Your task to perform on an android device: toggle notifications settings in the gmail app Image 0: 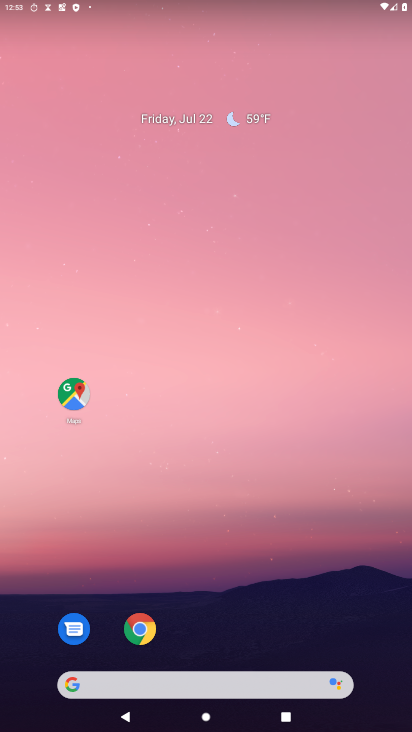
Step 0: drag from (281, 711) to (299, 18)
Your task to perform on an android device: toggle notifications settings in the gmail app Image 1: 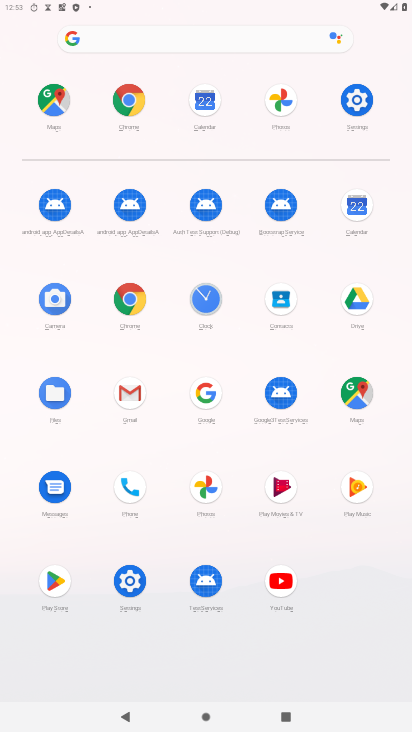
Step 1: click (136, 399)
Your task to perform on an android device: toggle notifications settings in the gmail app Image 2: 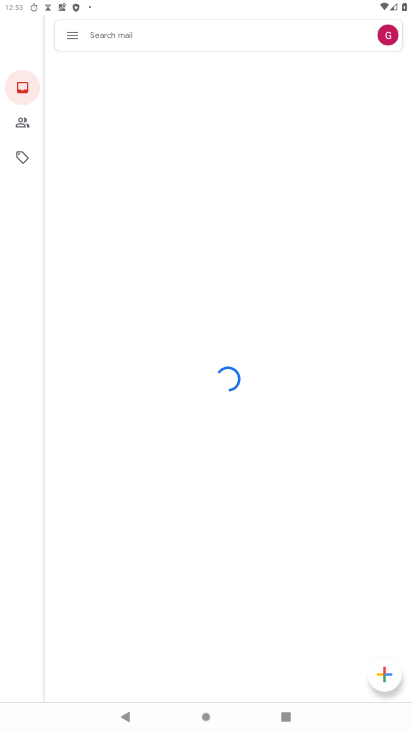
Step 2: click (72, 38)
Your task to perform on an android device: toggle notifications settings in the gmail app Image 3: 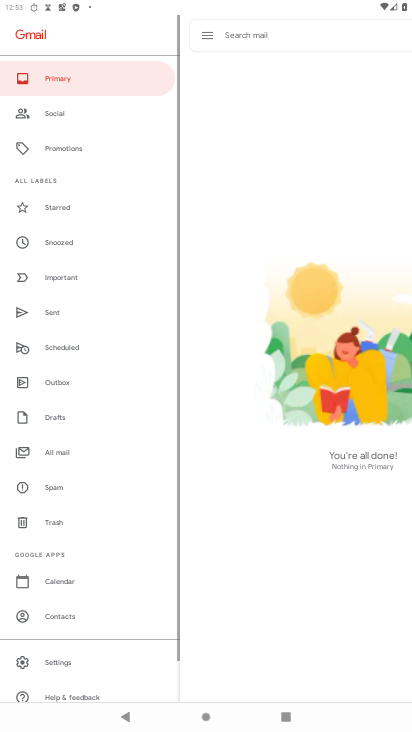
Step 3: click (72, 667)
Your task to perform on an android device: toggle notifications settings in the gmail app Image 4: 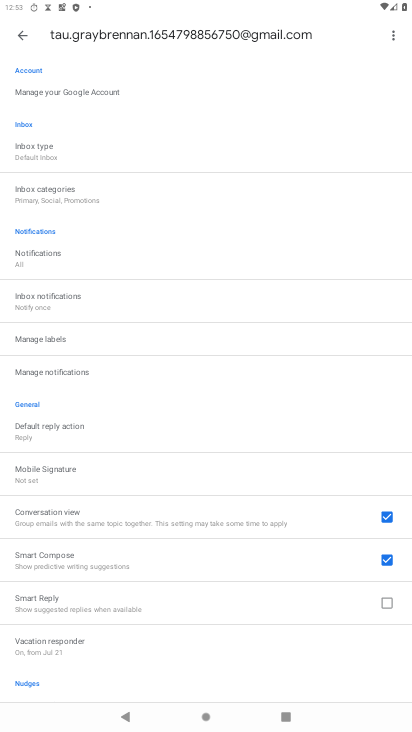
Step 4: click (20, 374)
Your task to perform on an android device: toggle notifications settings in the gmail app Image 5: 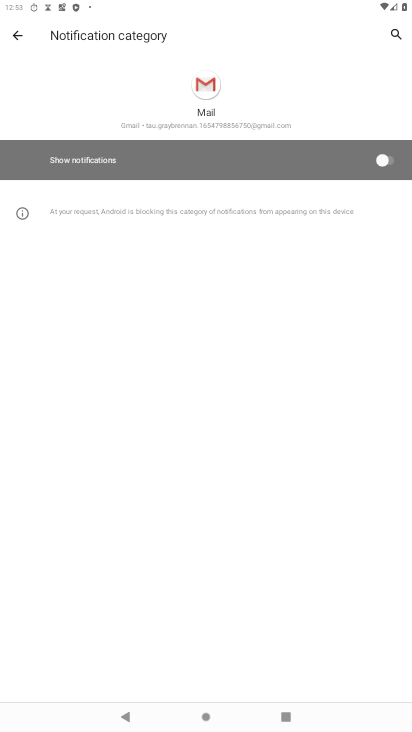
Step 5: click (382, 167)
Your task to perform on an android device: toggle notifications settings in the gmail app Image 6: 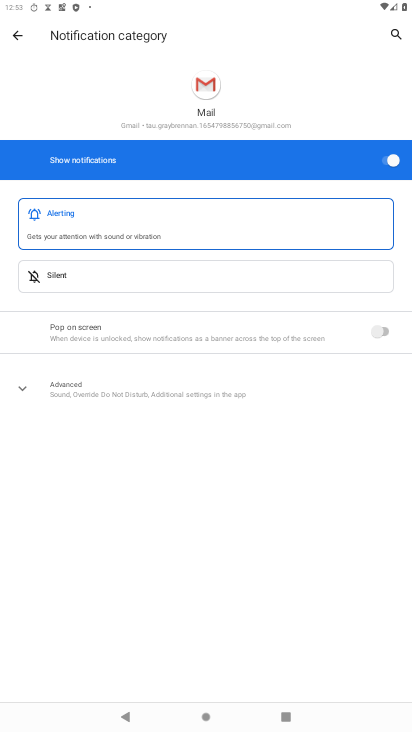
Step 6: task complete